Your task to perform on an android device: Search for dining room chairs on Crate & Barrel Image 0: 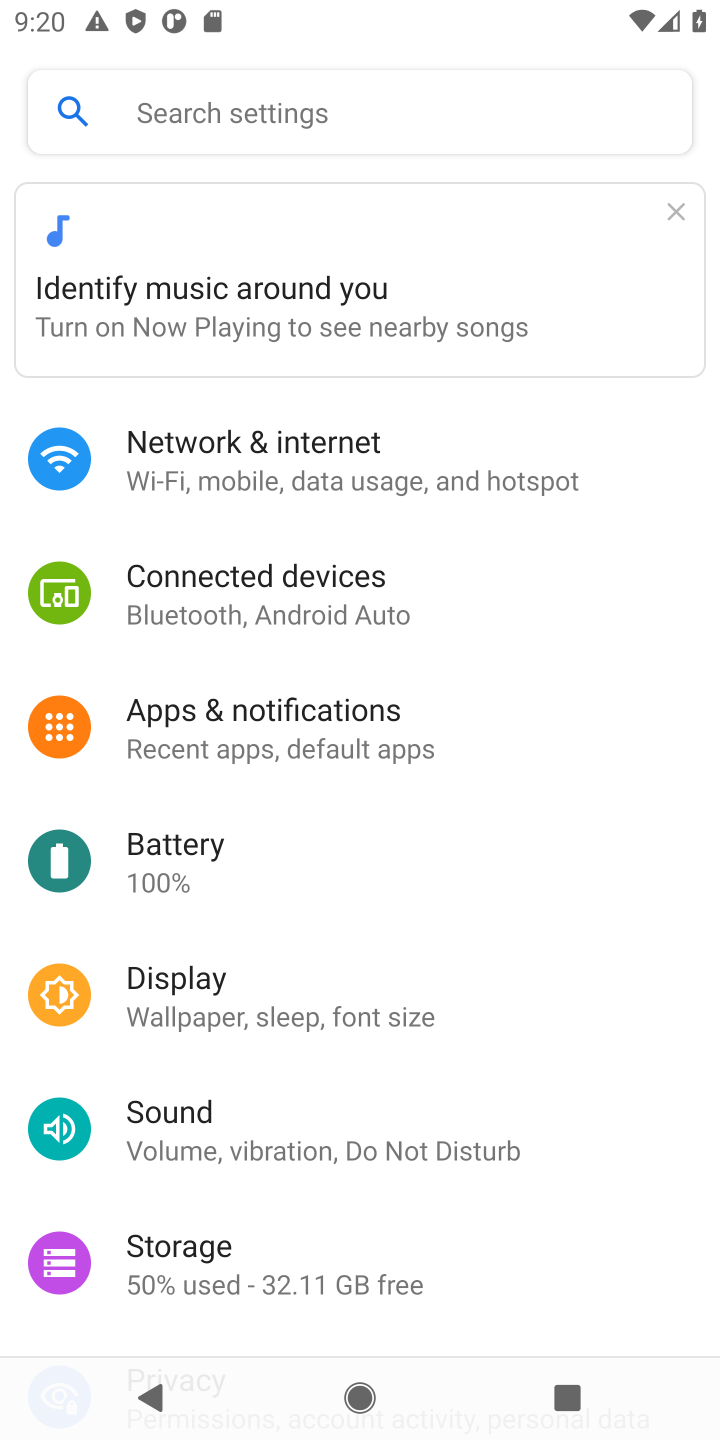
Step 0: press home button
Your task to perform on an android device: Search for dining room chairs on Crate & Barrel Image 1: 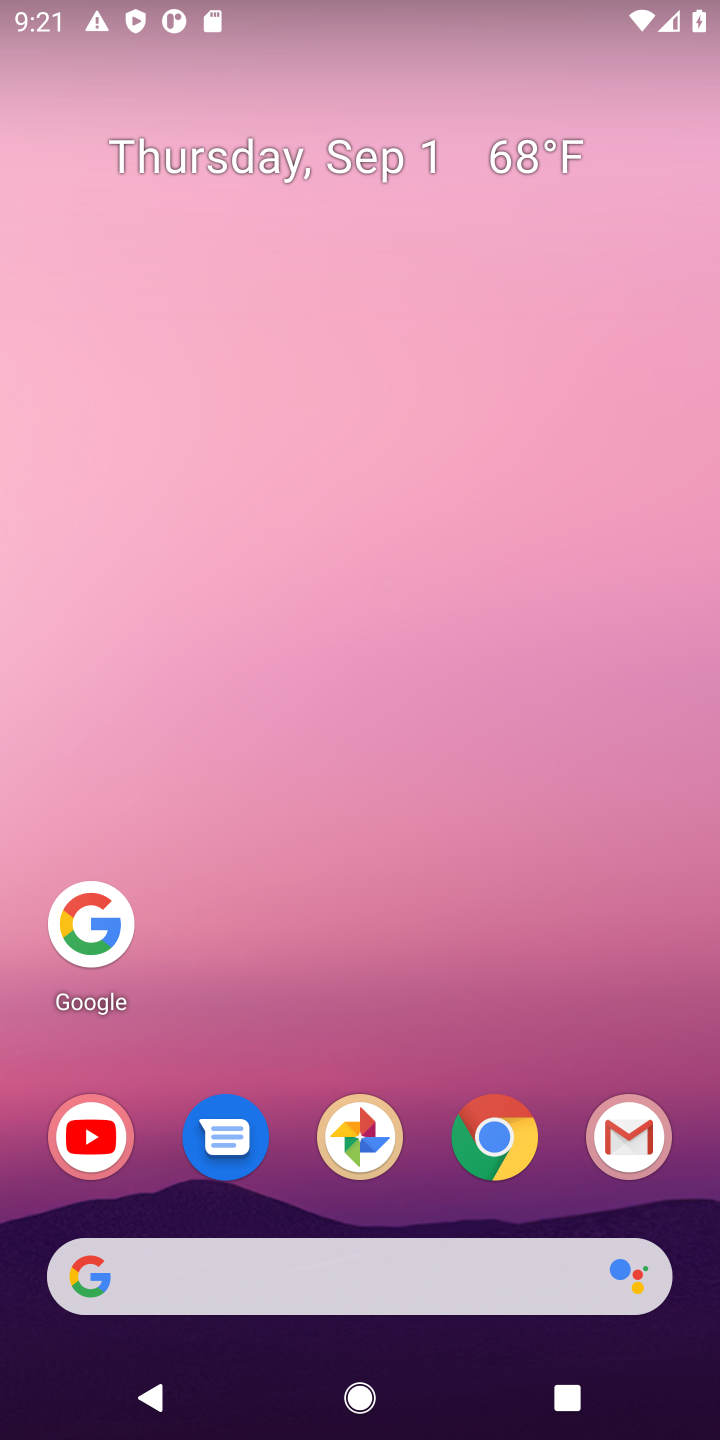
Step 1: click (421, 1270)
Your task to perform on an android device: Search for dining room chairs on Crate & Barrel Image 2: 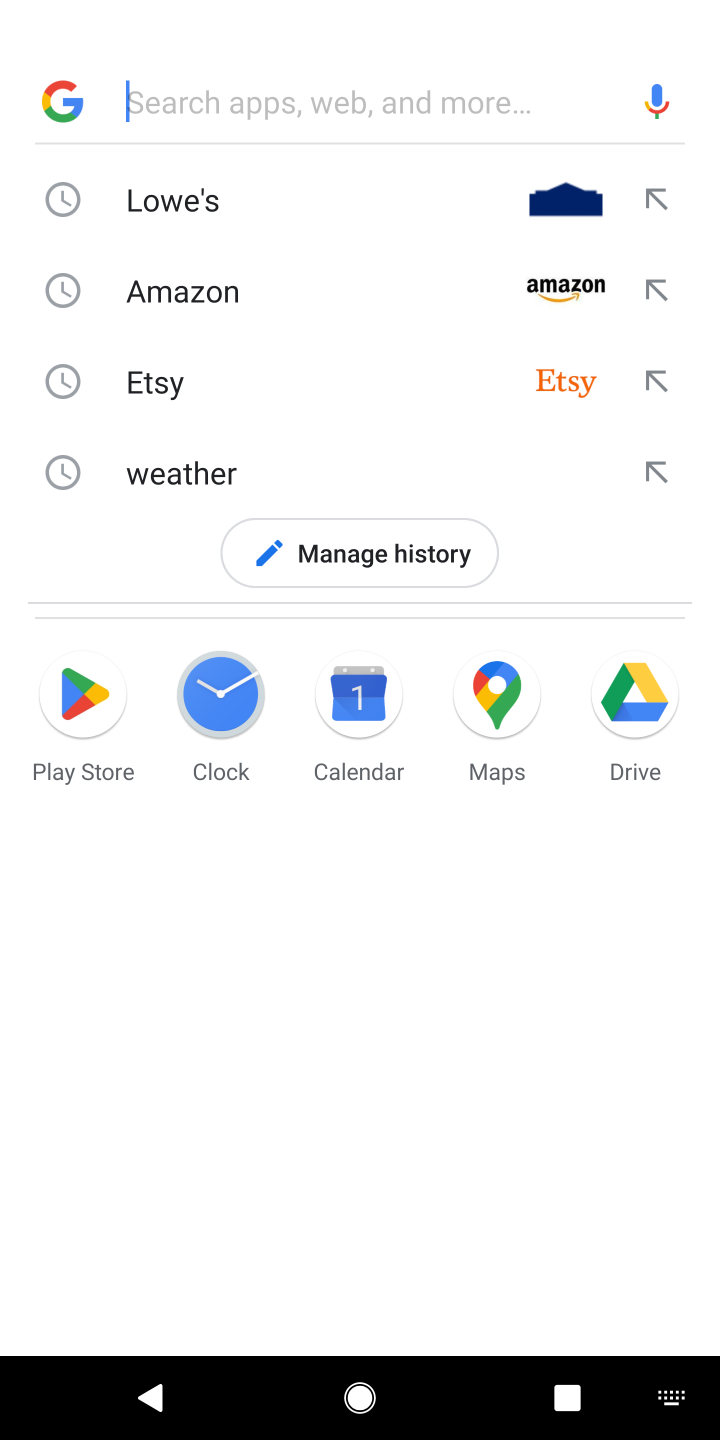
Step 2: type "crate & barrel"
Your task to perform on an android device: Search for dining room chairs on Crate & Barrel Image 3: 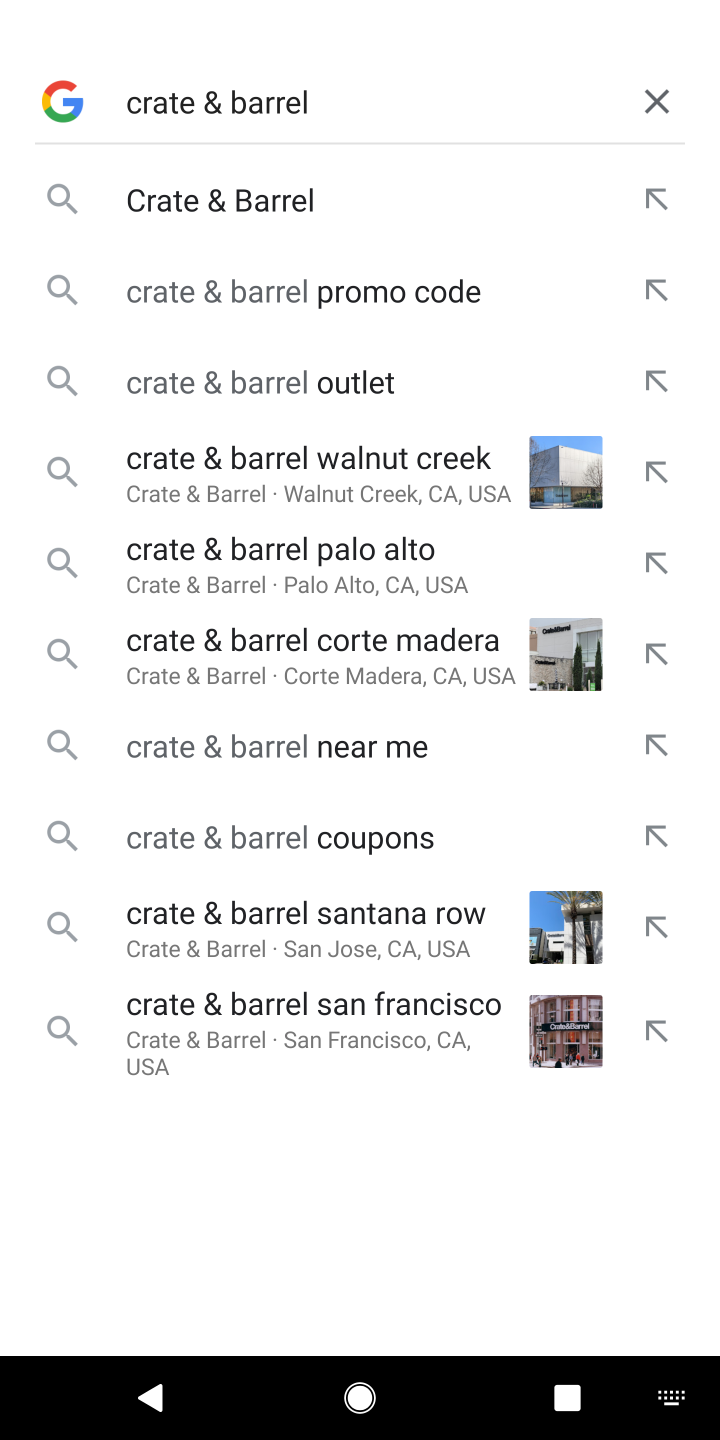
Step 3: click (264, 200)
Your task to perform on an android device: Search for dining room chairs on Crate & Barrel Image 4: 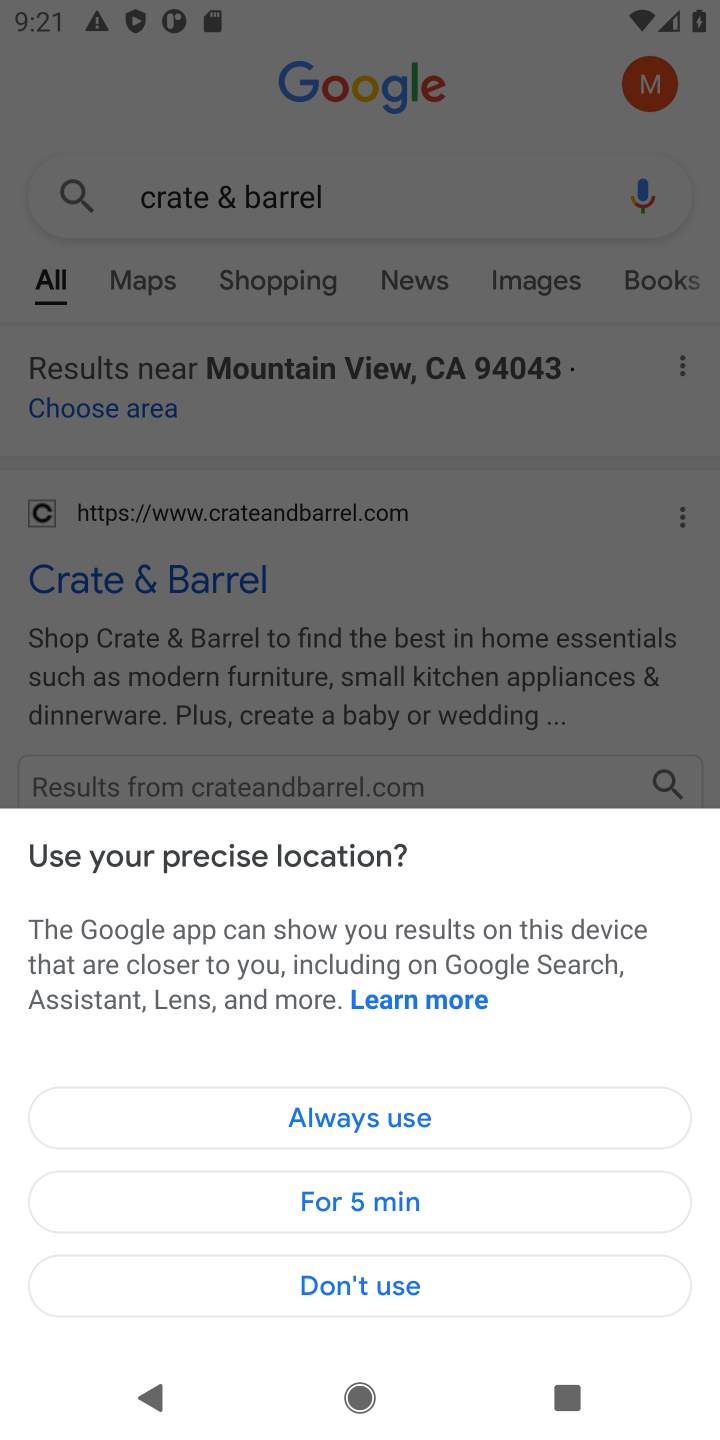
Step 4: click (423, 1285)
Your task to perform on an android device: Search for dining room chairs on Crate & Barrel Image 5: 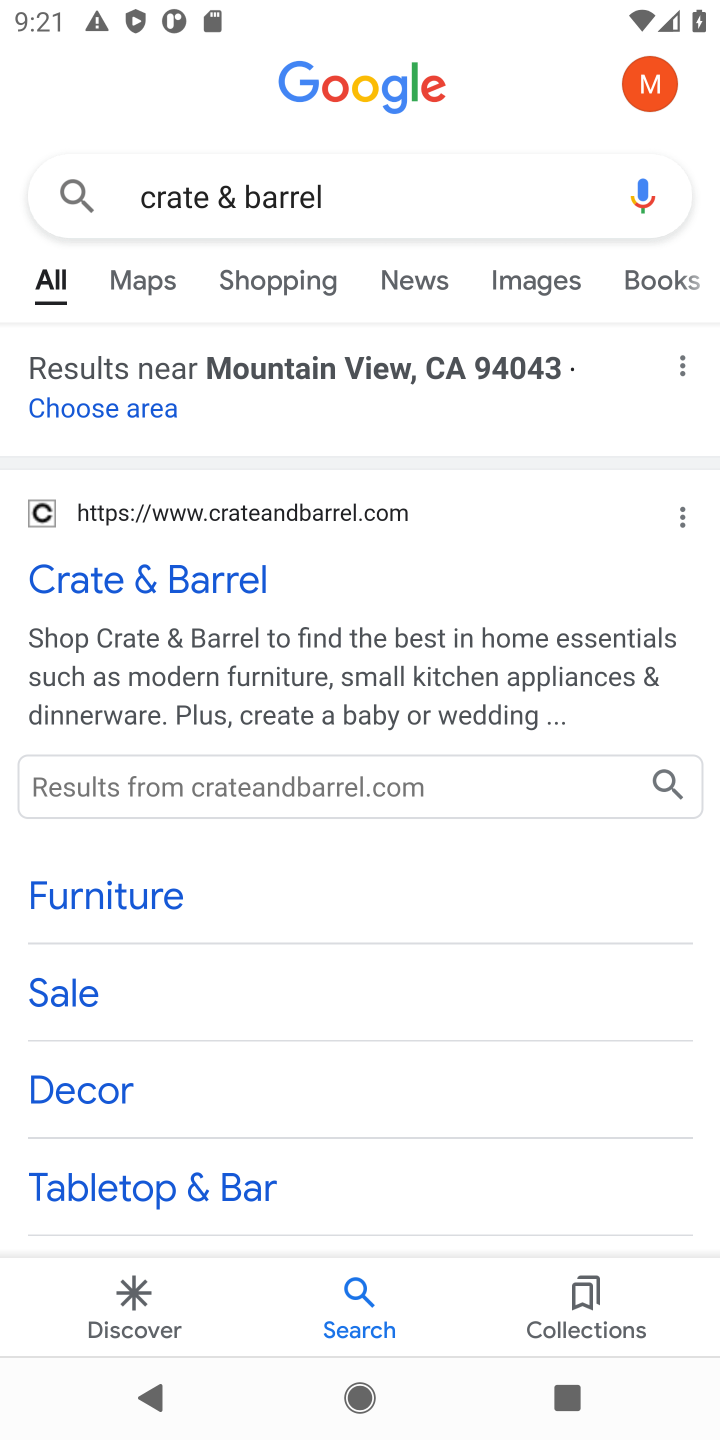
Step 5: click (155, 568)
Your task to perform on an android device: Search for dining room chairs on Crate & Barrel Image 6: 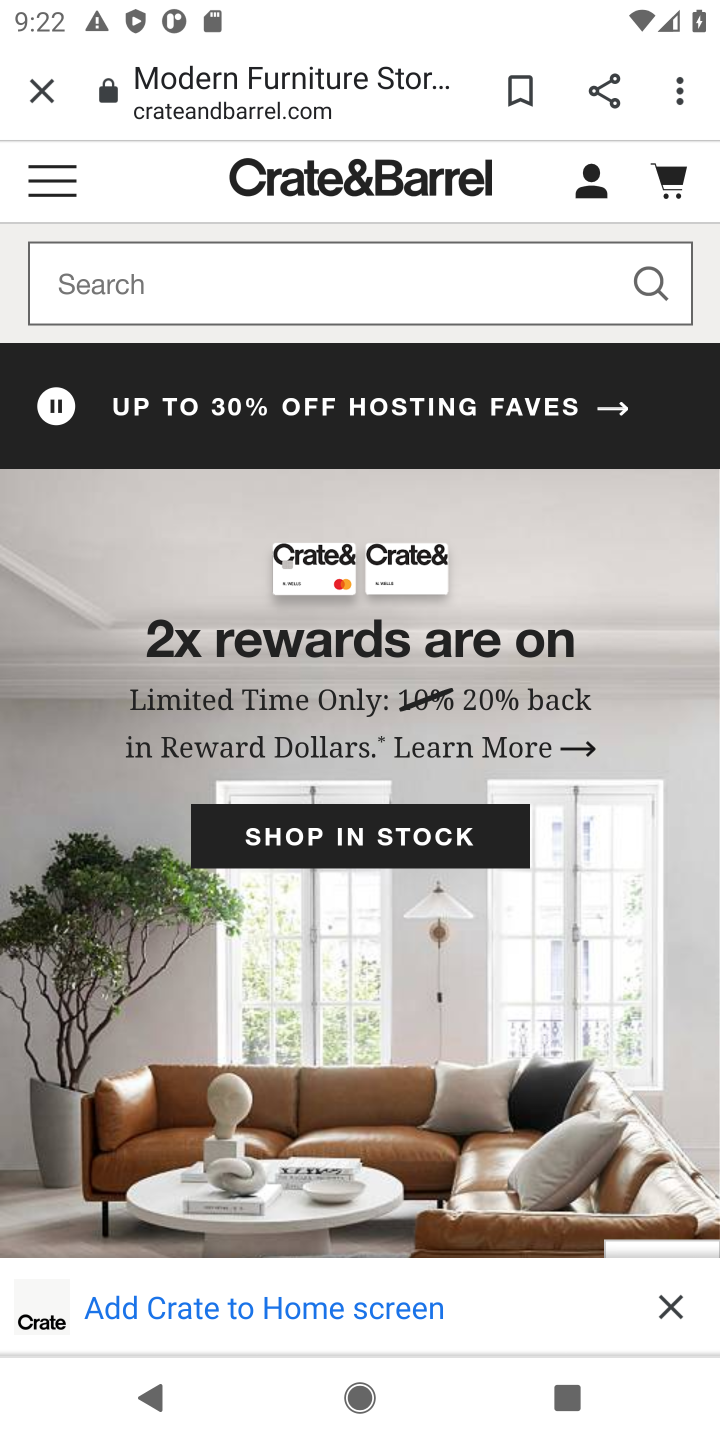
Step 6: click (201, 284)
Your task to perform on an android device: Search for dining room chairs on Crate & Barrel Image 7: 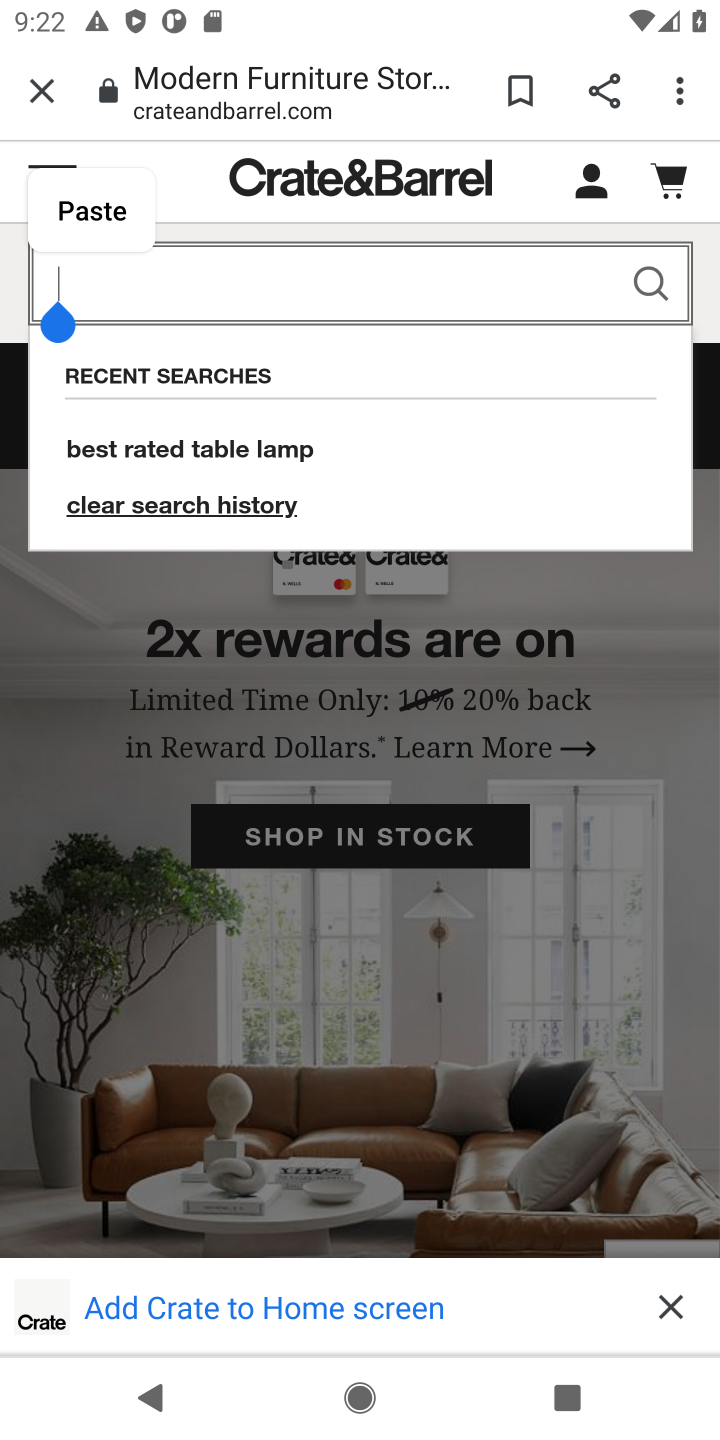
Step 7: type "dining chairs"
Your task to perform on an android device: Search for dining room chairs on Crate & Barrel Image 8: 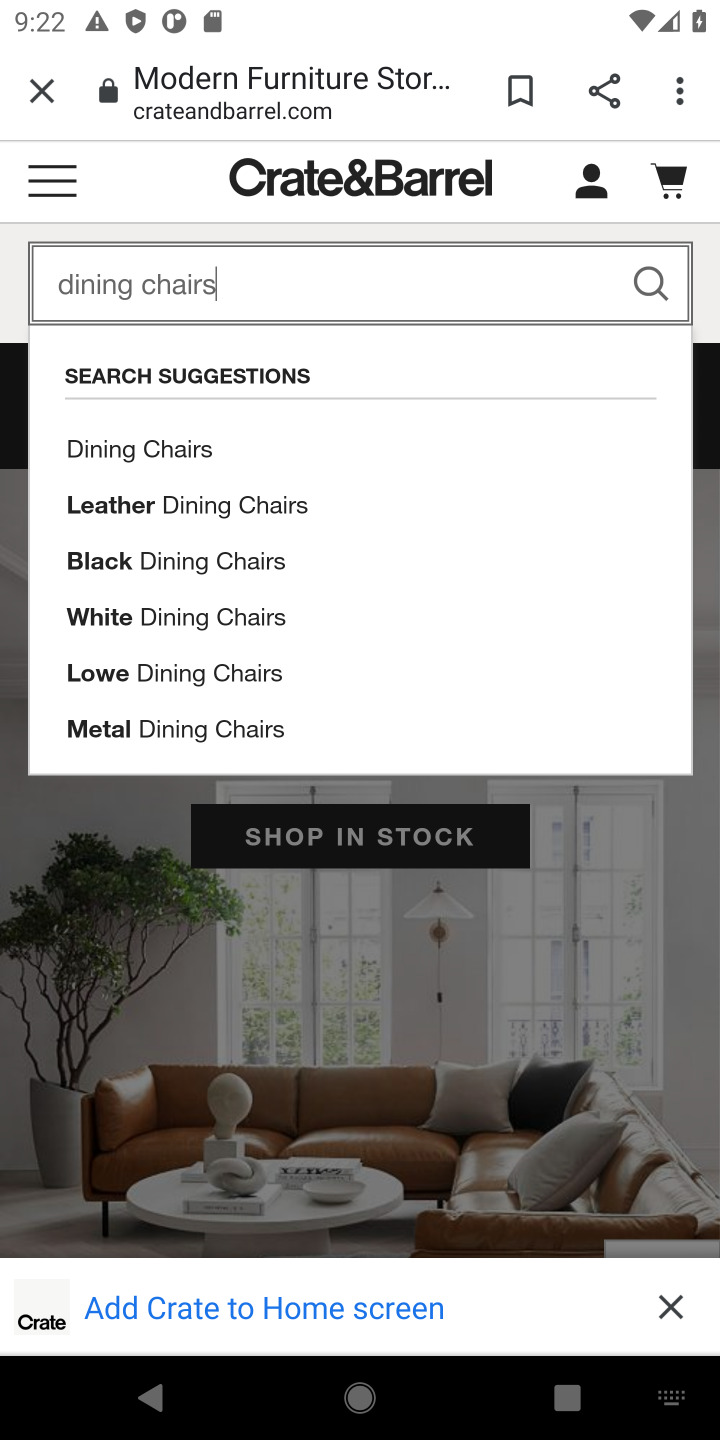
Step 8: click (653, 280)
Your task to perform on an android device: Search for dining room chairs on Crate & Barrel Image 9: 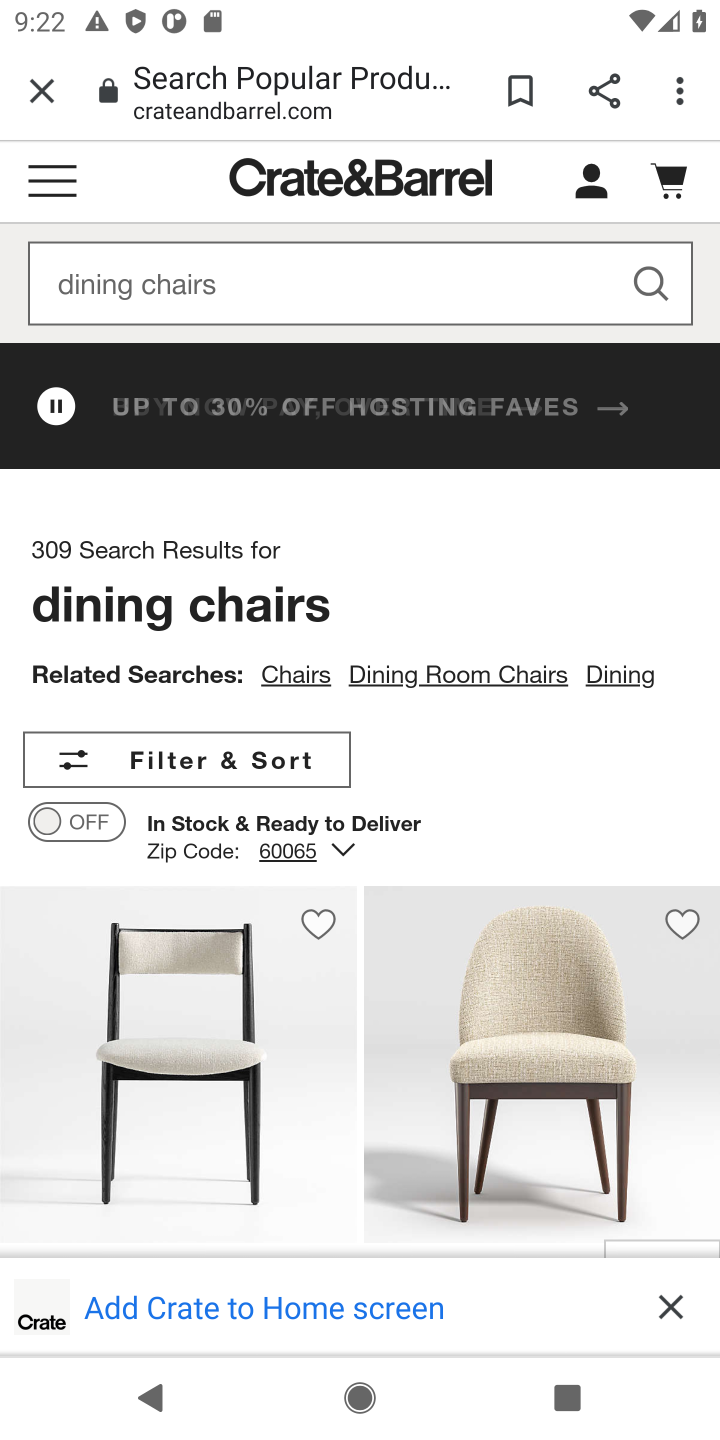
Step 9: drag from (448, 329) to (444, 168)
Your task to perform on an android device: Search for dining room chairs on Crate & Barrel Image 10: 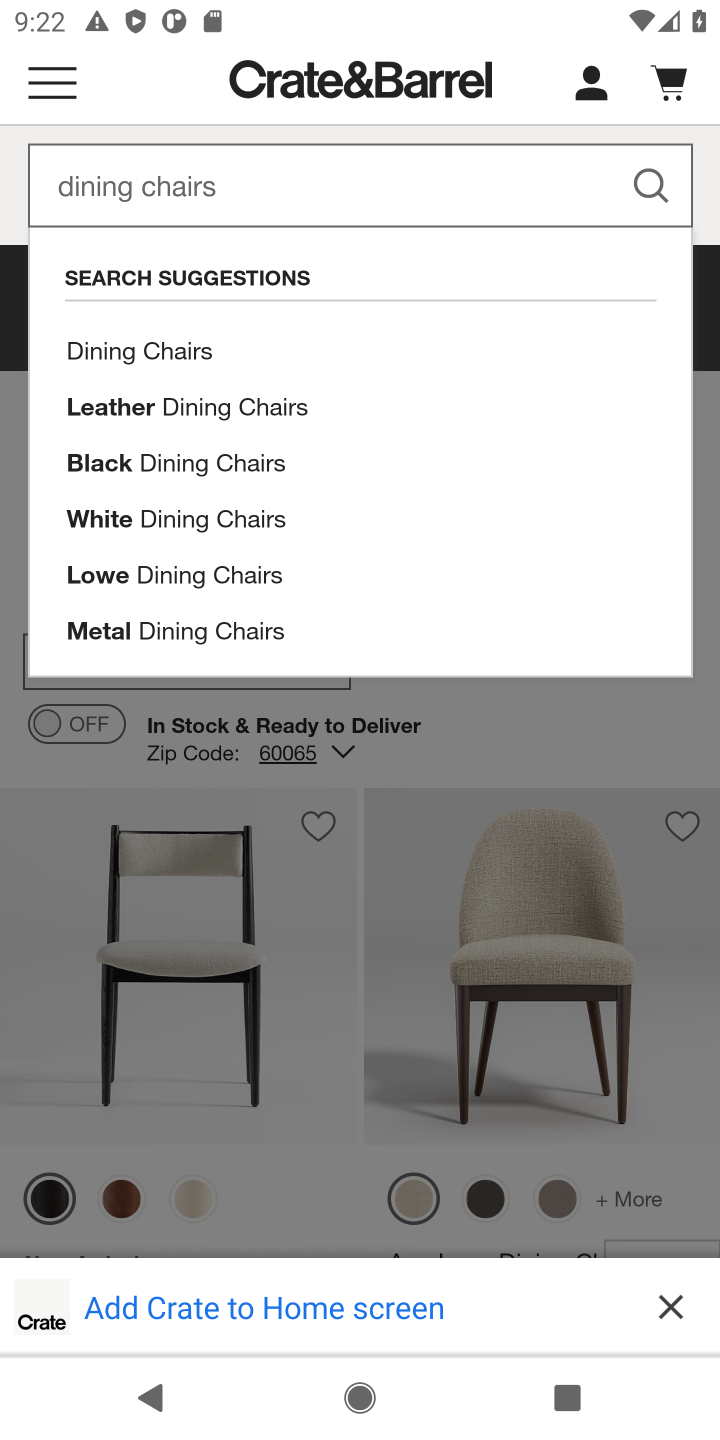
Step 10: click (499, 712)
Your task to perform on an android device: Search for dining room chairs on Crate & Barrel Image 11: 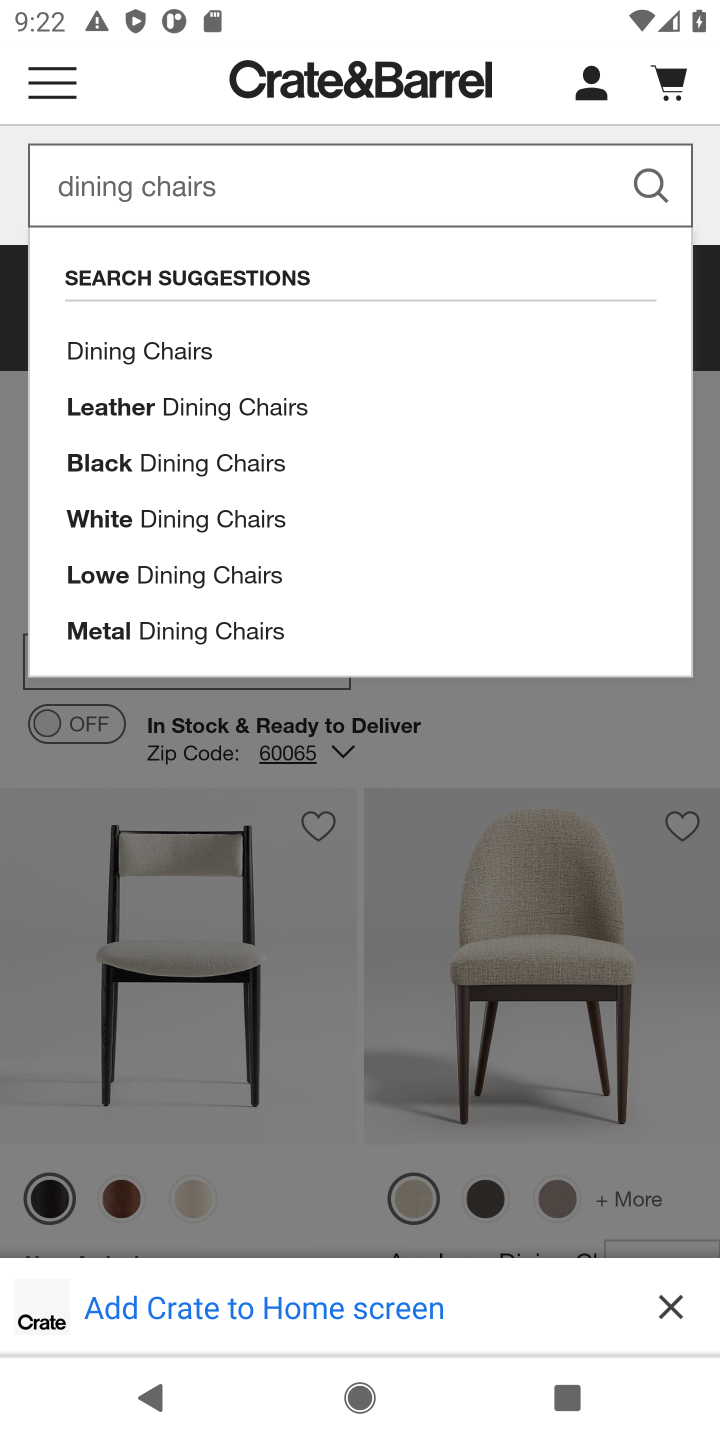
Step 11: click (179, 345)
Your task to perform on an android device: Search for dining room chairs on Crate & Barrel Image 12: 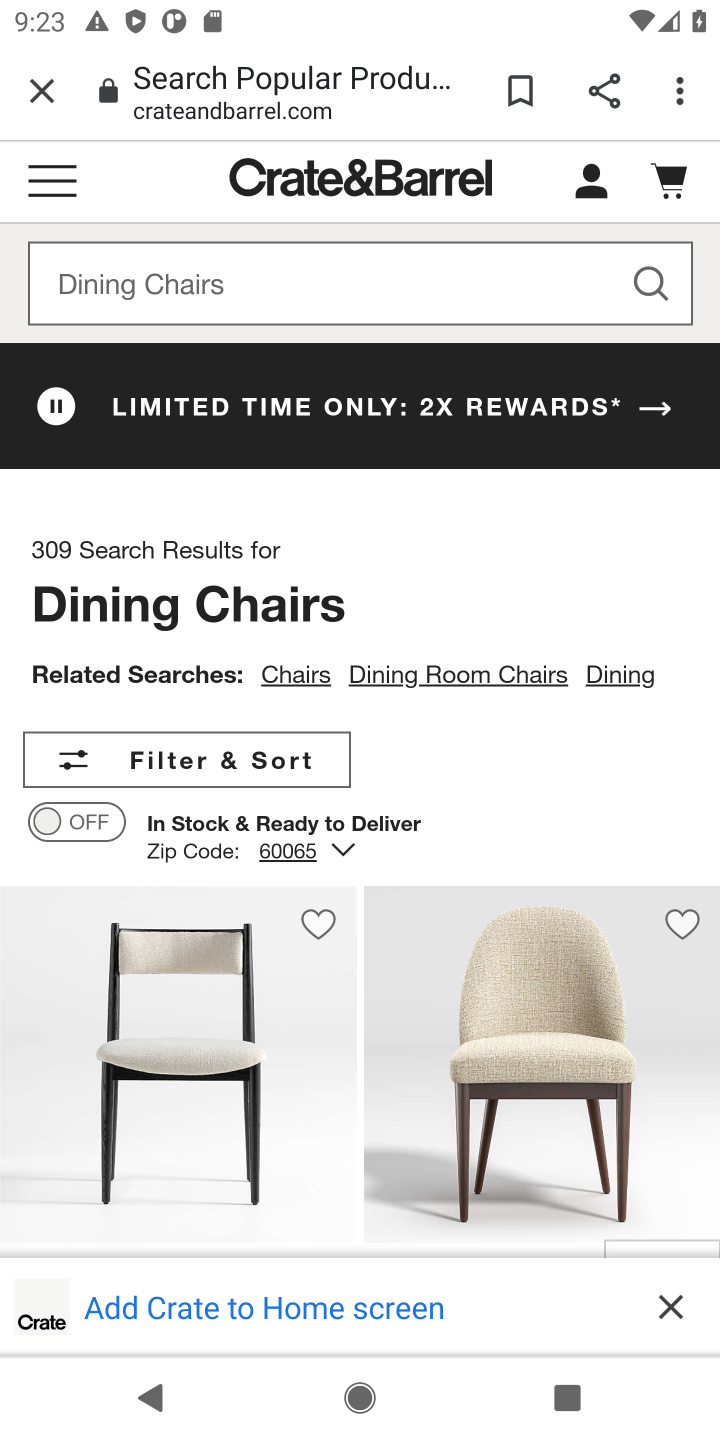
Step 12: task complete